Your task to perform on an android device: Open the map Image 0: 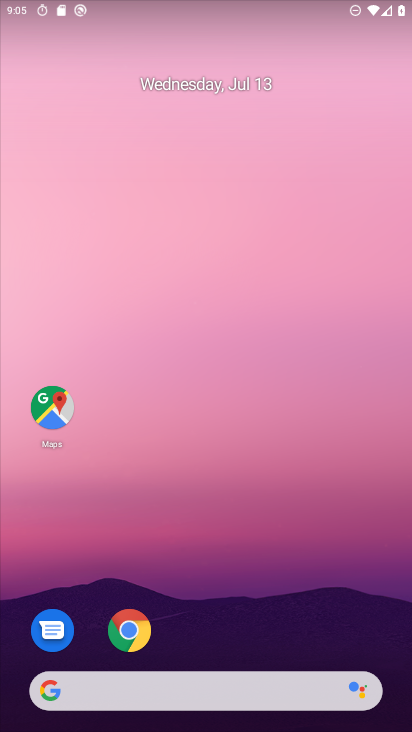
Step 0: drag from (382, 644) to (207, 64)
Your task to perform on an android device: Open the map Image 1: 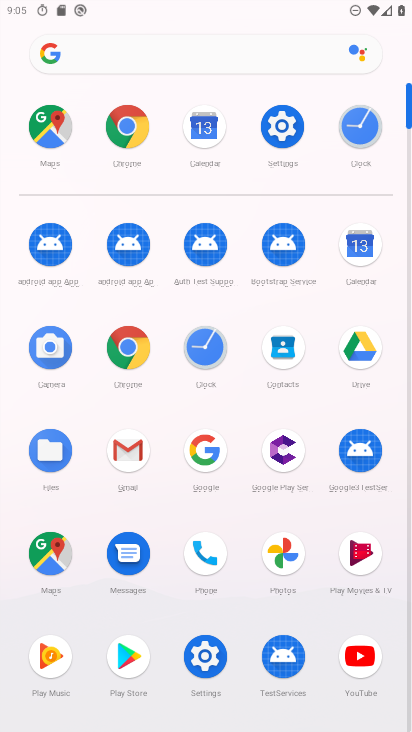
Step 1: click (52, 558)
Your task to perform on an android device: Open the map Image 2: 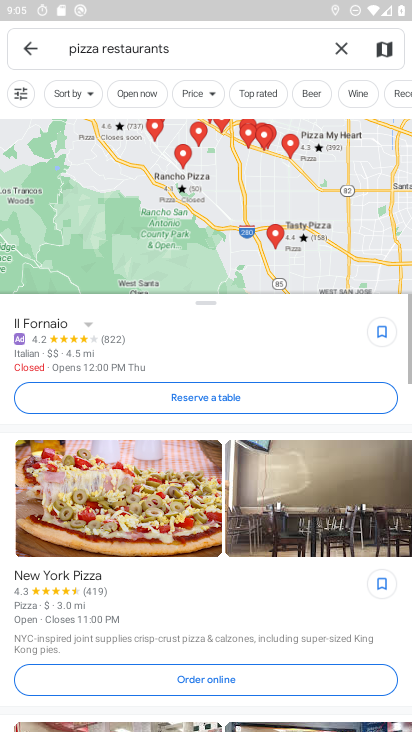
Step 2: click (346, 42)
Your task to perform on an android device: Open the map Image 3: 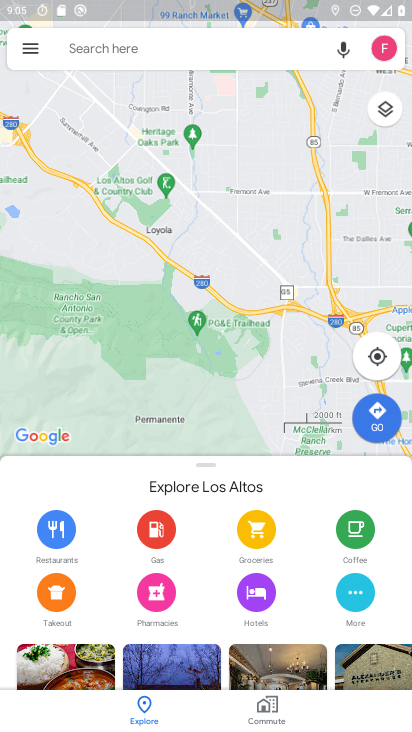
Step 3: task complete